Your task to perform on an android device: clear all cookies in the chrome app Image 0: 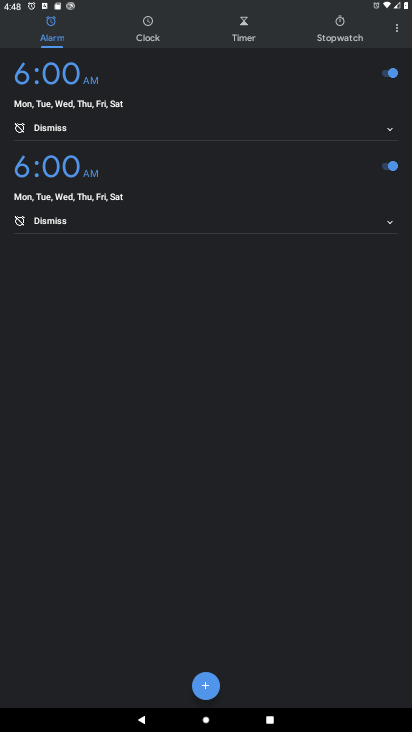
Step 0: press home button
Your task to perform on an android device: clear all cookies in the chrome app Image 1: 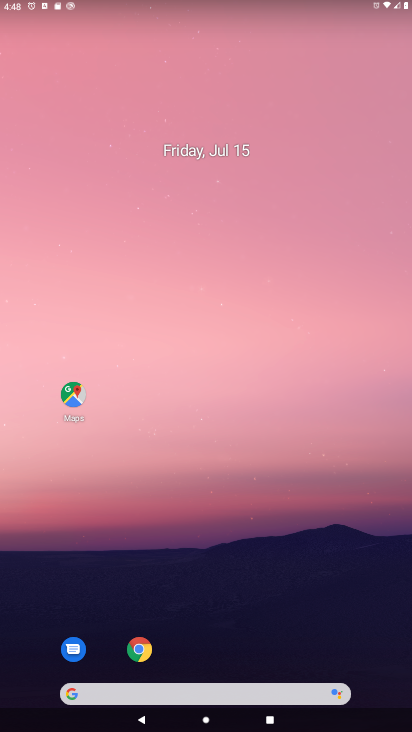
Step 1: click (139, 652)
Your task to perform on an android device: clear all cookies in the chrome app Image 2: 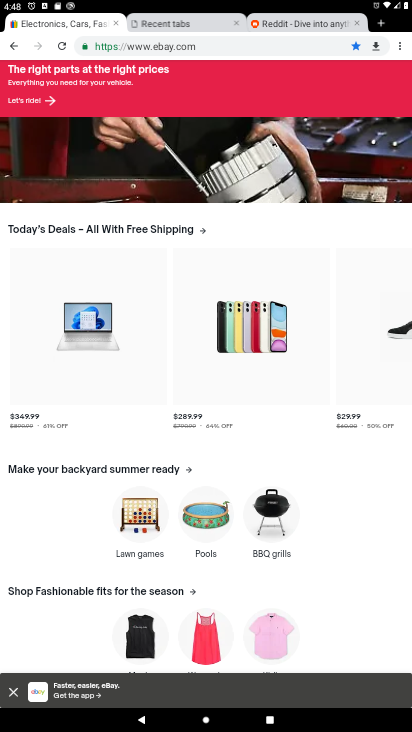
Step 2: click (399, 49)
Your task to perform on an android device: clear all cookies in the chrome app Image 3: 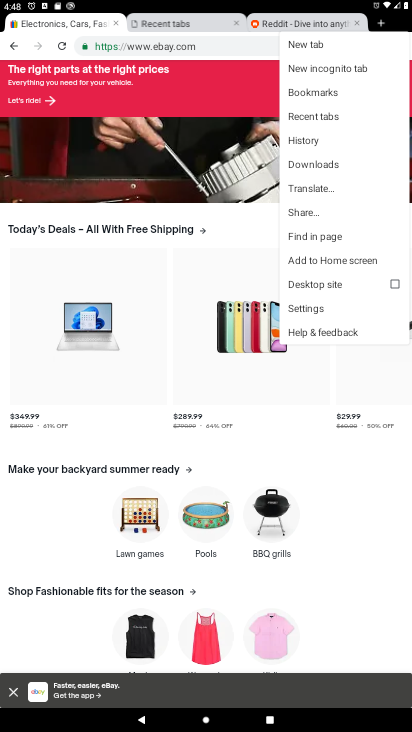
Step 3: click (301, 138)
Your task to perform on an android device: clear all cookies in the chrome app Image 4: 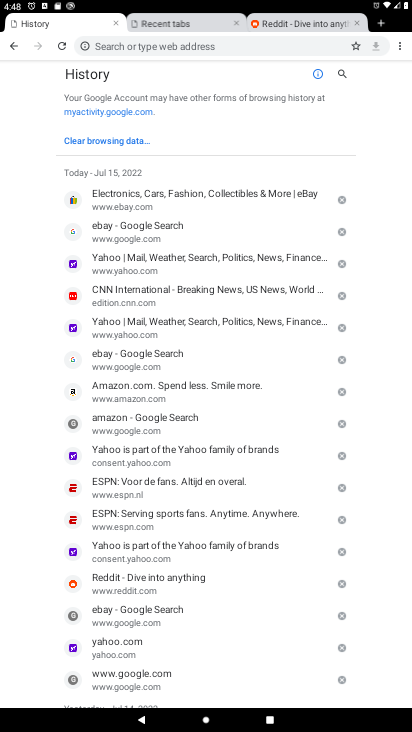
Step 4: click (107, 138)
Your task to perform on an android device: clear all cookies in the chrome app Image 5: 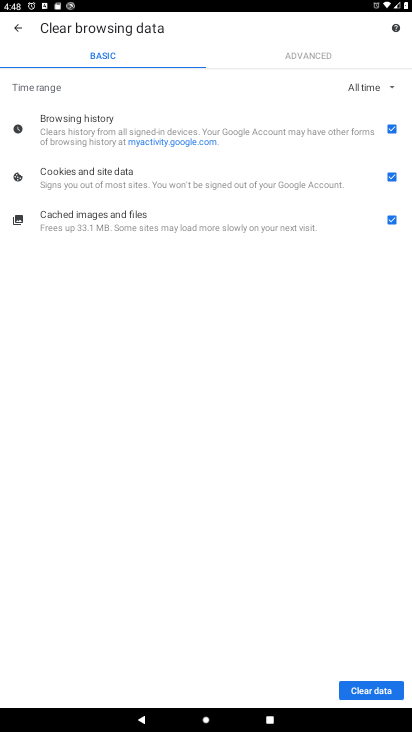
Step 5: click (392, 129)
Your task to perform on an android device: clear all cookies in the chrome app Image 6: 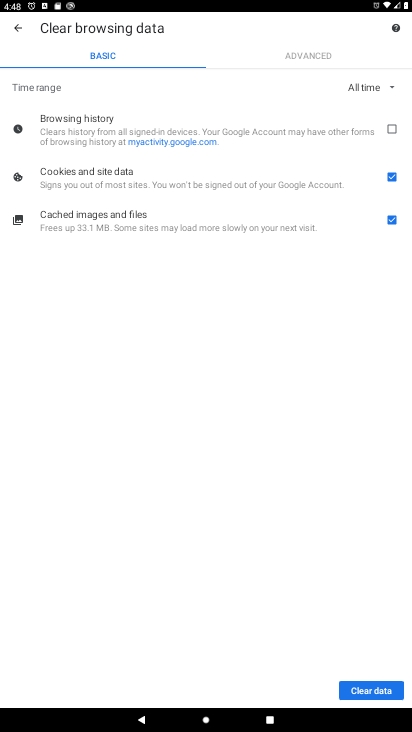
Step 6: click (392, 220)
Your task to perform on an android device: clear all cookies in the chrome app Image 7: 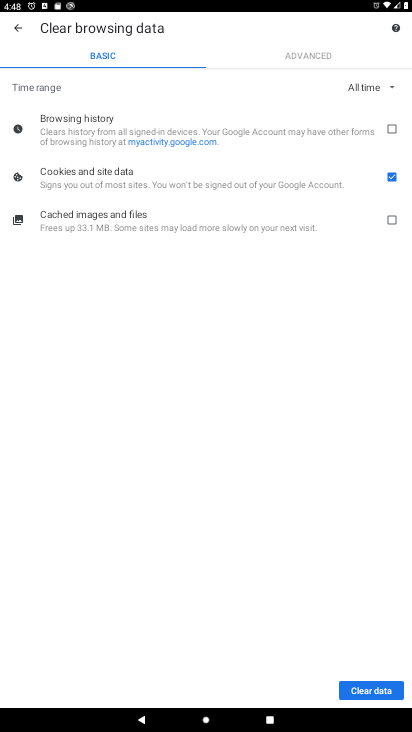
Step 7: click (370, 692)
Your task to perform on an android device: clear all cookies in the chrome app Image 8: 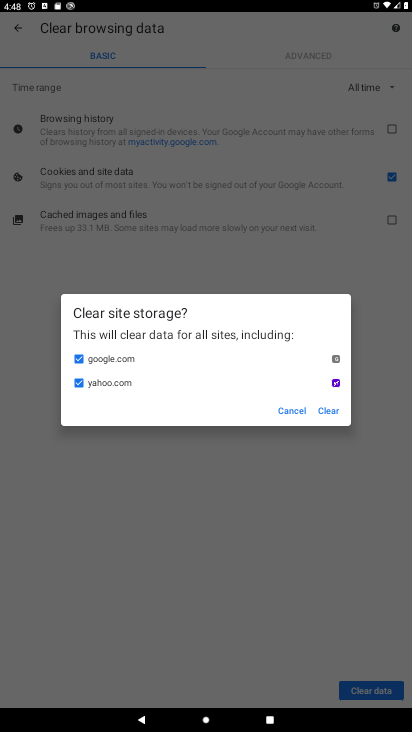
Step 8: click (325, 409)
Your task to perform on an android device: clear all cookies in the chrome app Image 9: 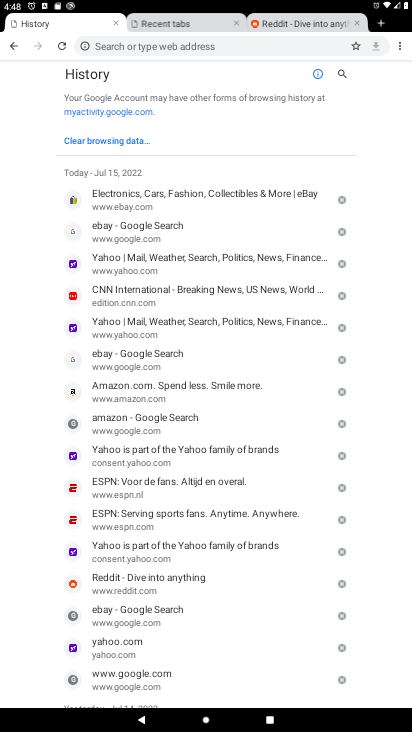
Step 9: task complete